Your task to perform on an android device: allow notifications from all sites in the chrome app Image 0: 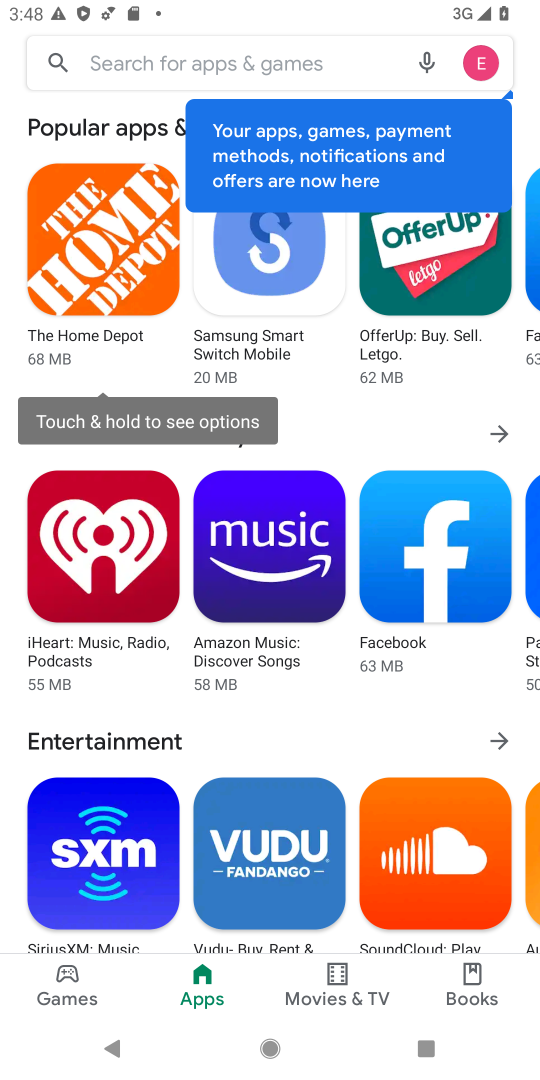
Step 0: press home button
Your task to perform on an android device: allow notifications from all sites in the chrome app Image 1: 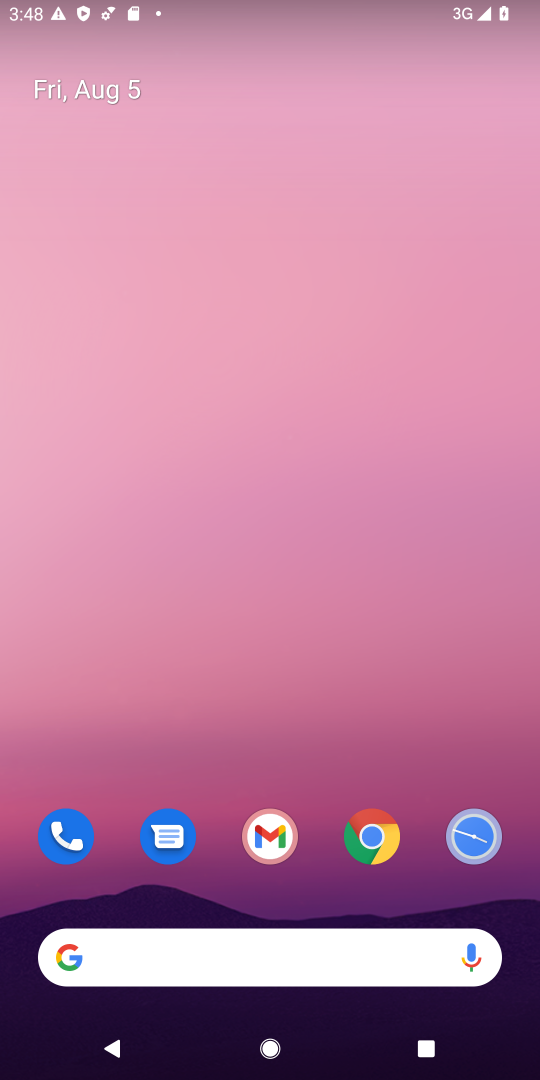
Step 1: drag from (453, 533) to (525, 0)
Your task to perform on an android device: allow notifications from all sites in the chrome app Image 2: 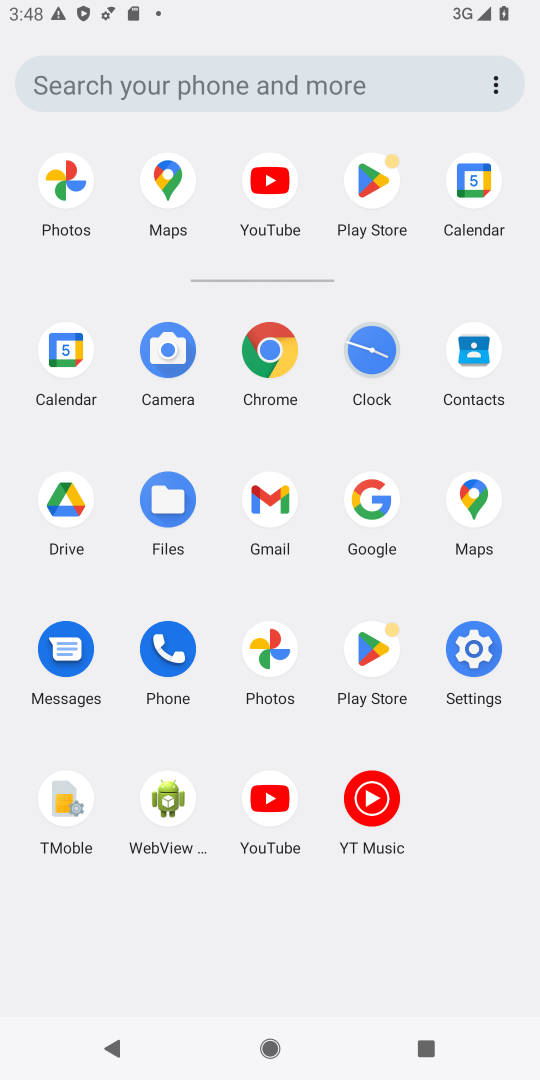
Step 2: click (260, 373)
Your task to perform on an android device: allow notifications from all sites in the chrome app Image 3: 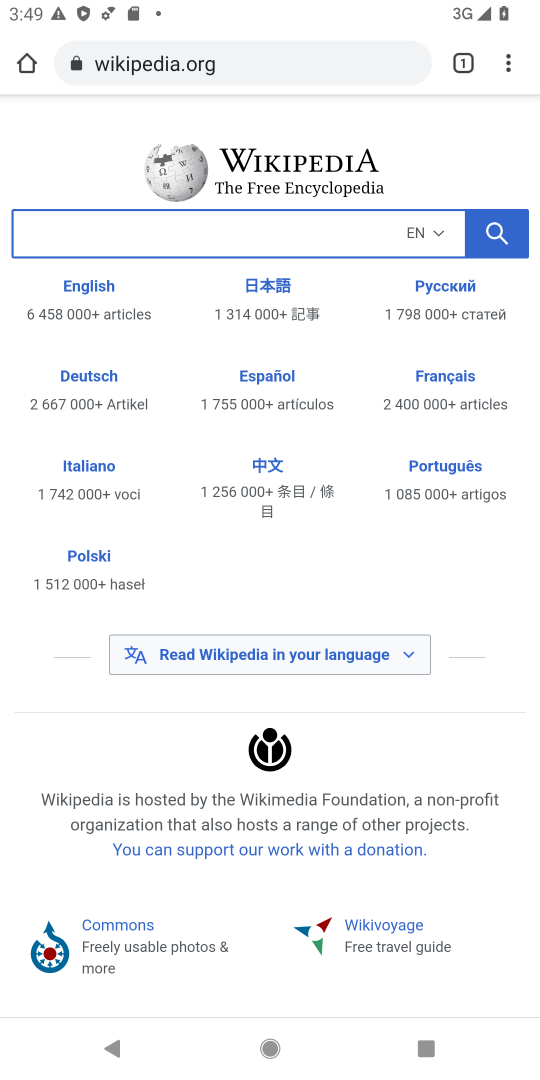
Step 3: drag from (498, 73) to (343, 840)
Your task to perform on an android device: allow notifications from all sites in the chrome app Image 4: 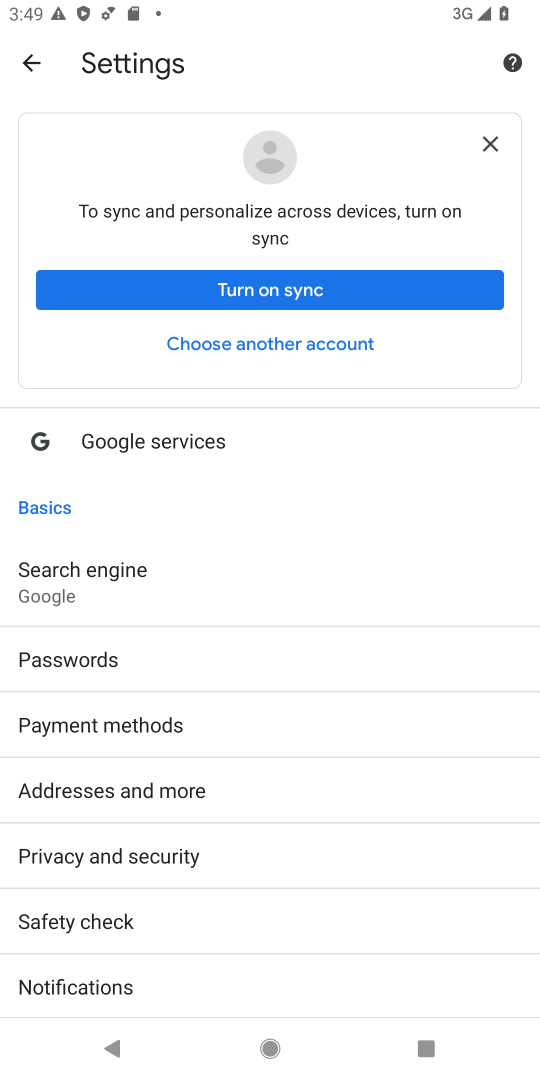
Step 4: drag from (104, 914) to (183, 480)
Your task to perform on an android device: allow notifications from all sites in the chrome app Image 5: 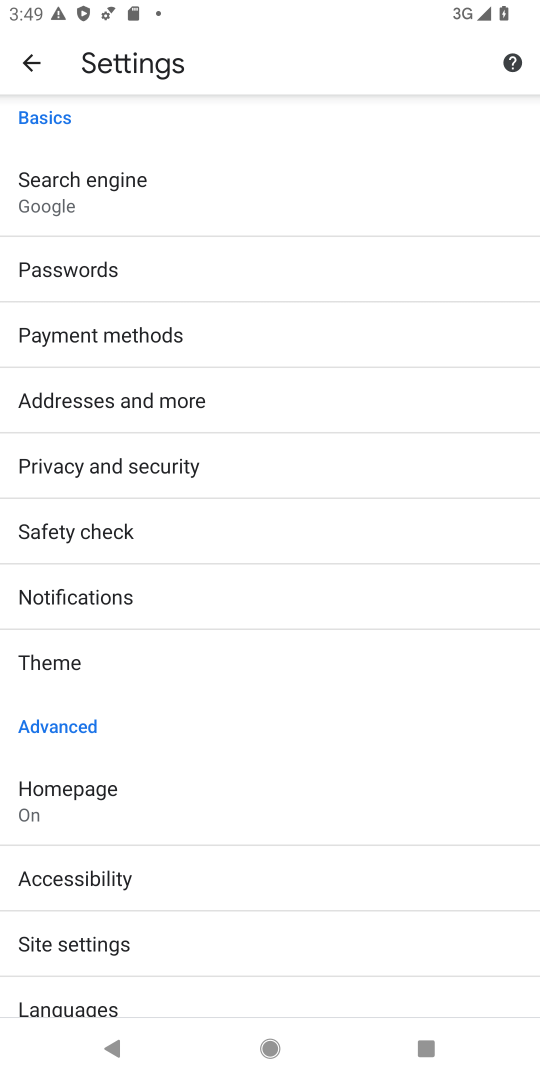
Step 5: click (116, 605)
Your task to perform on an android device: allow notifications from all sites in the chrome app Image 6: 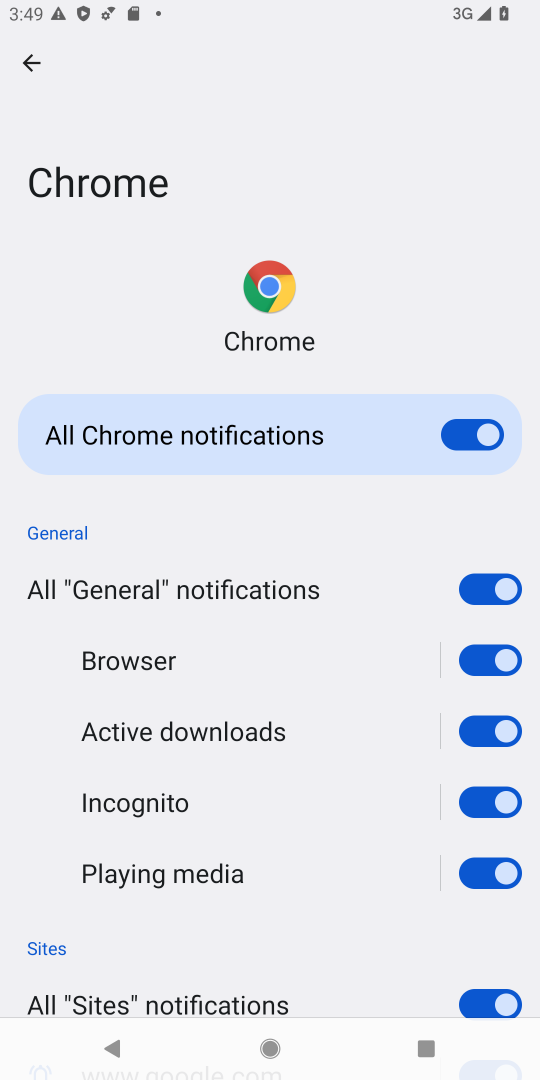
Step 6: click (32, 52)
Your task to perform on an android device: allow notifications from all sites in the chrome app Image 7: 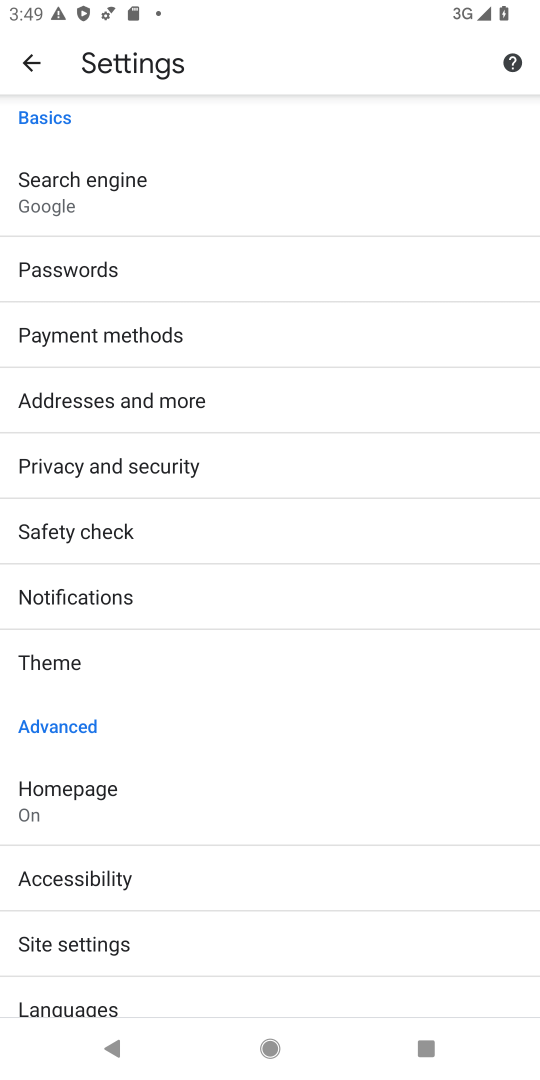
Step 7: click (123, 944)
Your task to perform on an android device: allow notifications from all sites in the chrome app Image 8: 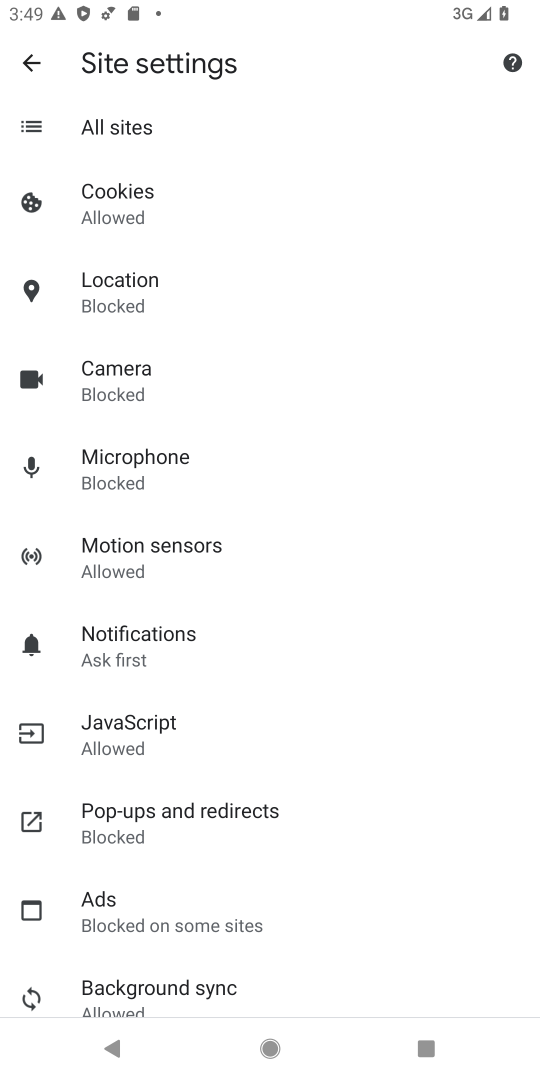
Step 8: drag from (143, 790) to (235, 145)
Your task to perform on an android device: allow notifications from all sites in the chrome app Image 9: 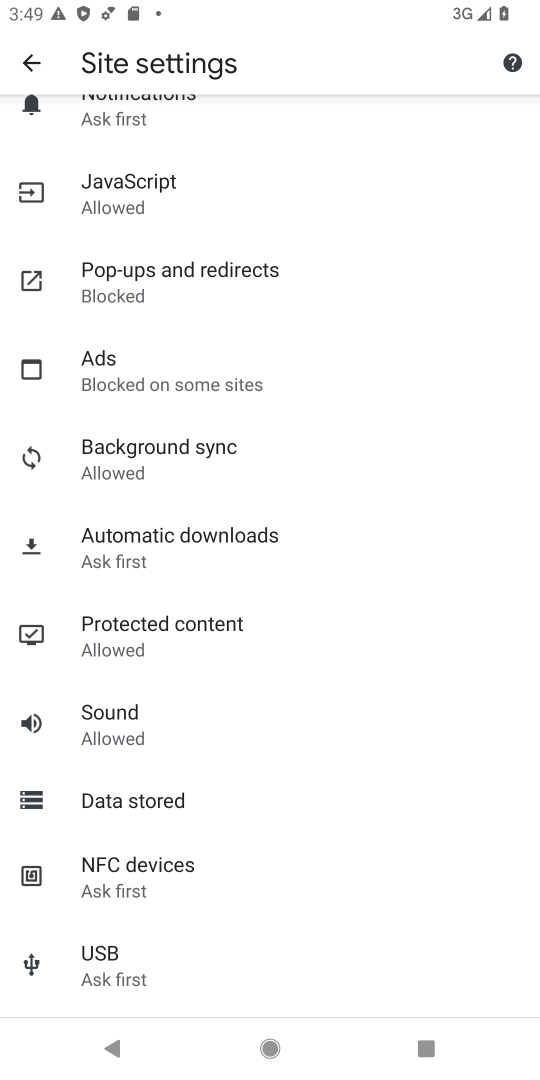
Step 9: drag from (207, 951) to (219, 295)
Your task to perform on an android device: allow notifications from all sites in the chrome app Image 10: 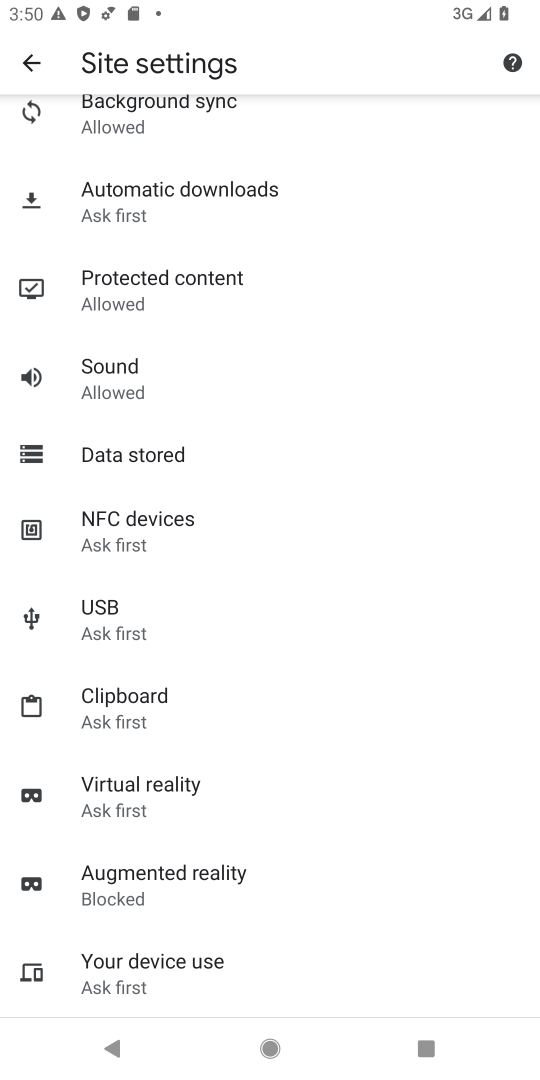
Step 10: drag from (264, 520) to (243, 944)
Your task to perform on an android device: allow notifications from all sites in the chrome app Image 11: 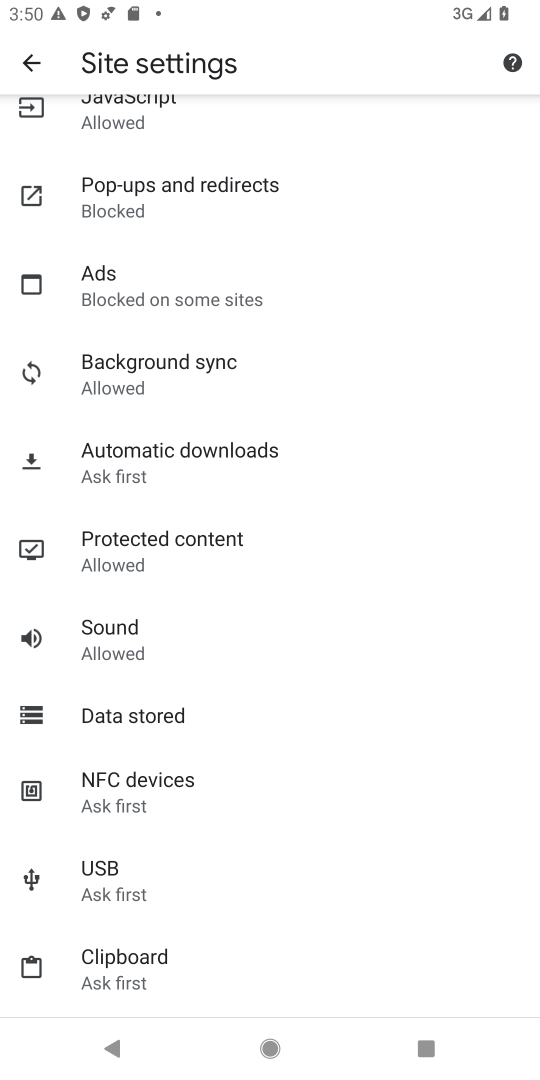
Step 11: drag from (293, 330) to (268, 900)
Your task to perform on an android device: allow notifications from all sites in the chrome app Image 12: 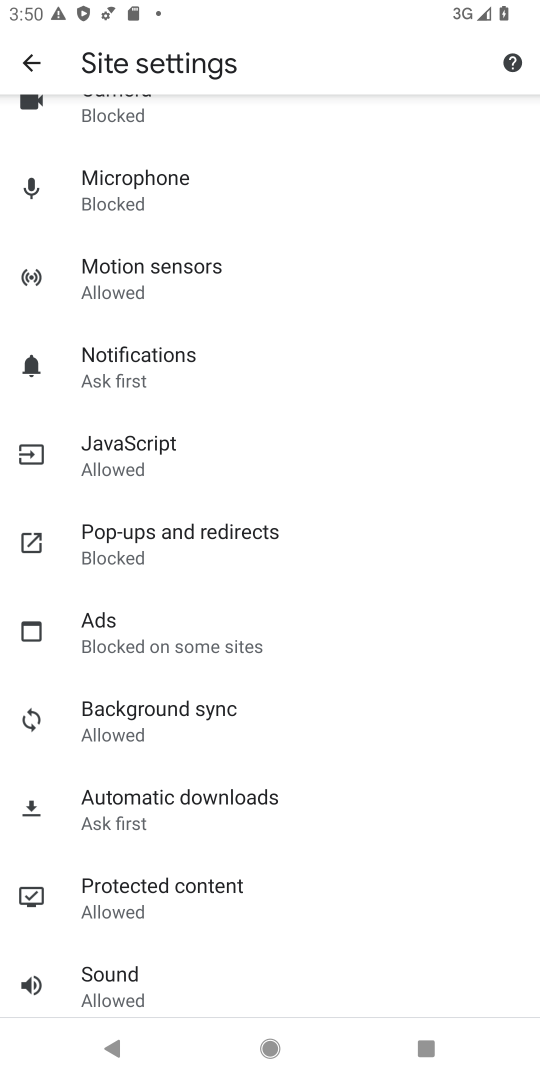
Step 12: click (100, 372)
Your task to perform on an android device: allow notifications from all sites in the chrome app Image 13: 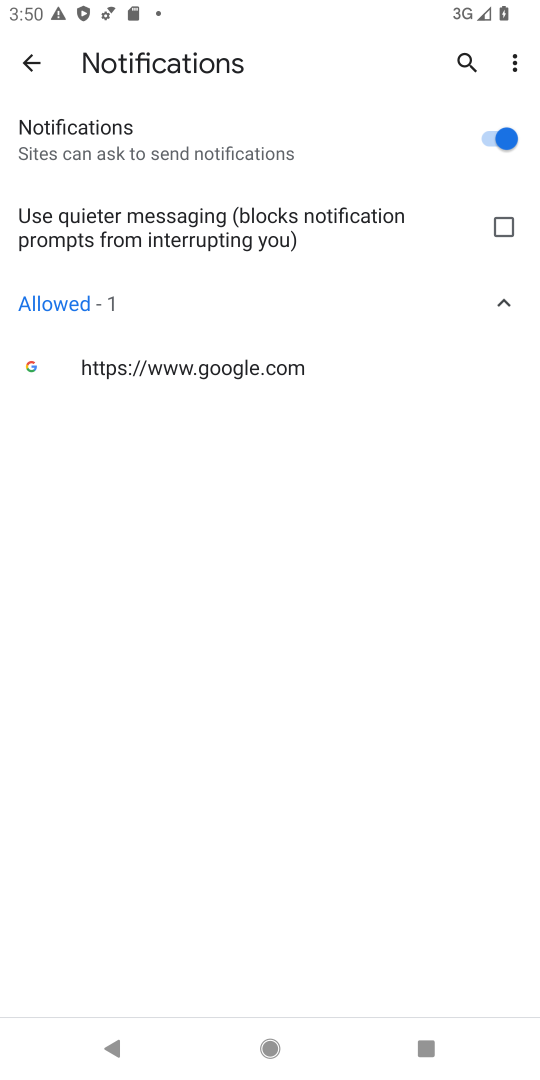
Step 13: task complete